Your task to perform on an android device: toggle data saver in the chrome app Image 0: 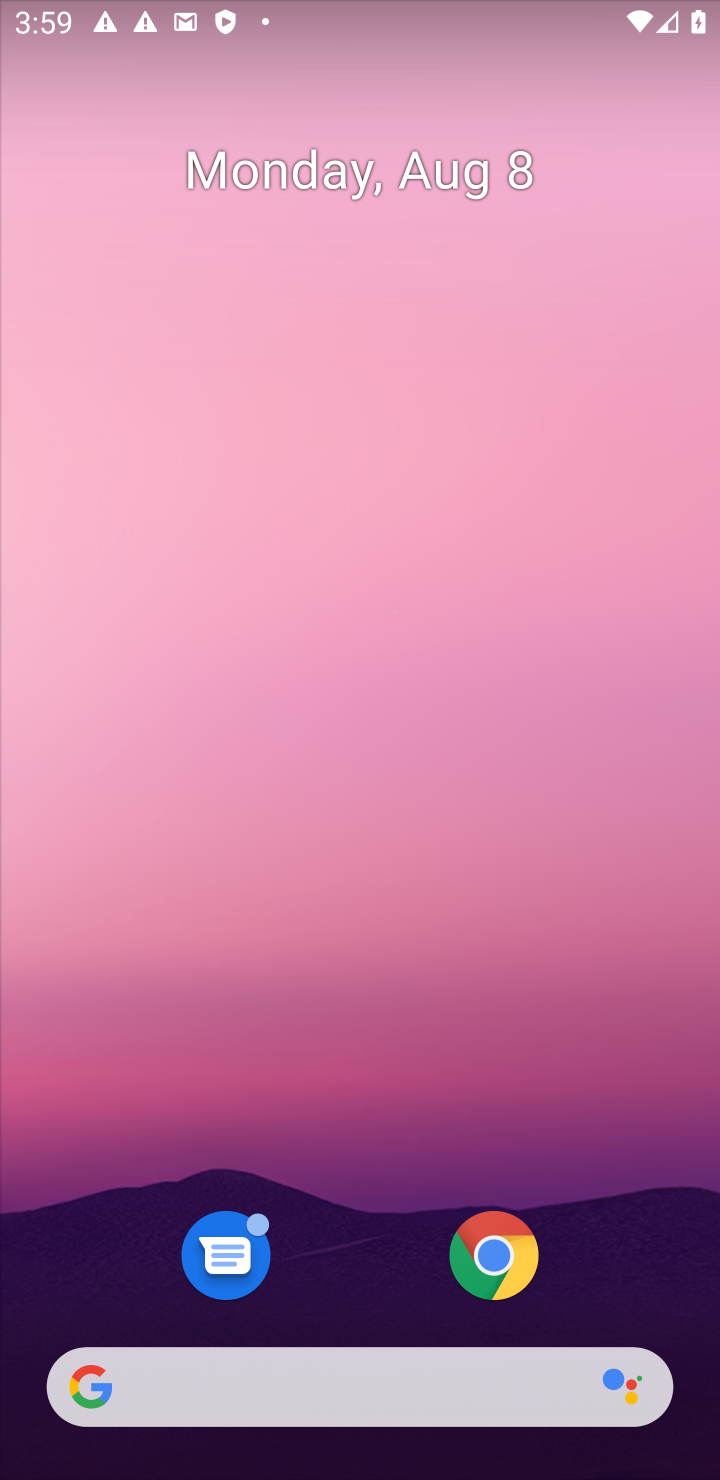
Step 0: click (499, 1256)
Your task to perform on an android device: toggle data saver in the chrome app Image 1: 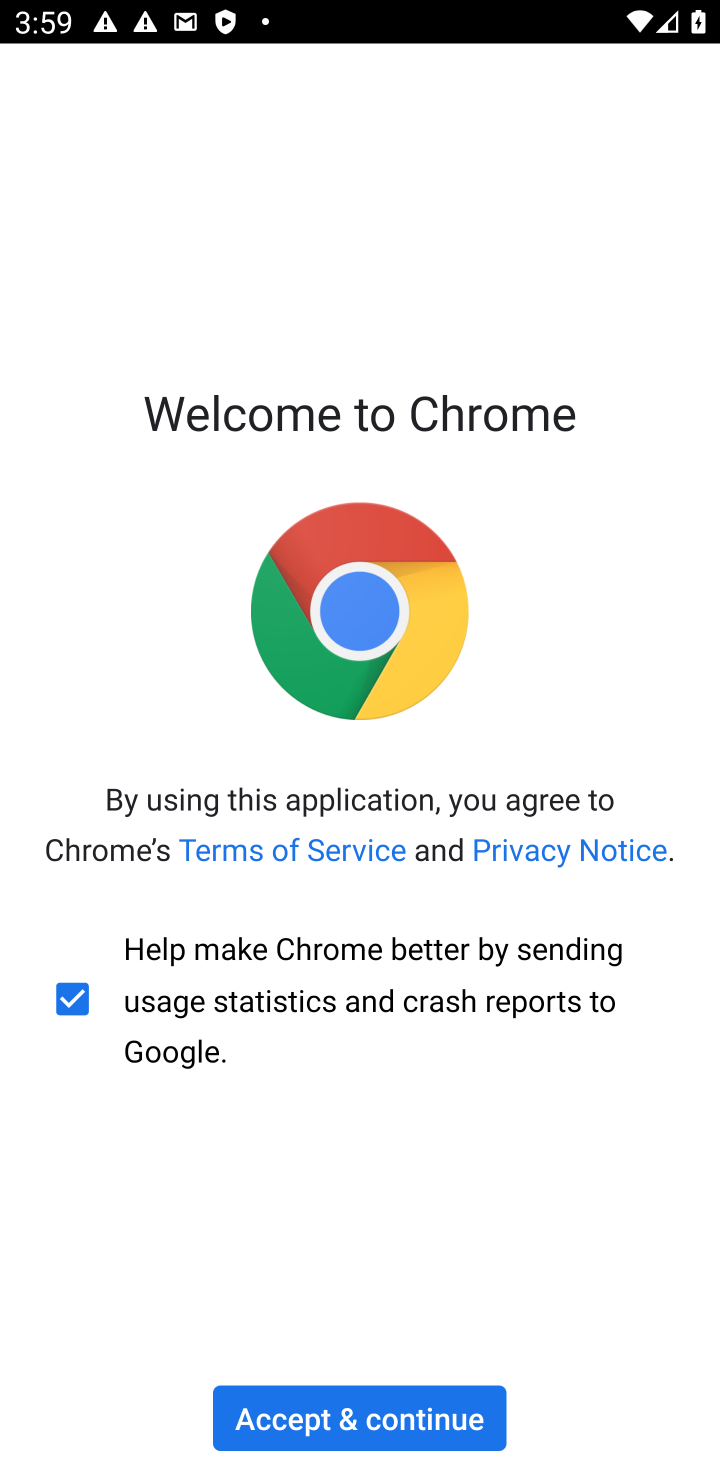
Step 1: click (364, 1415)
Your task to perform on an android device: toggle data saver in the chrome app Image 2: 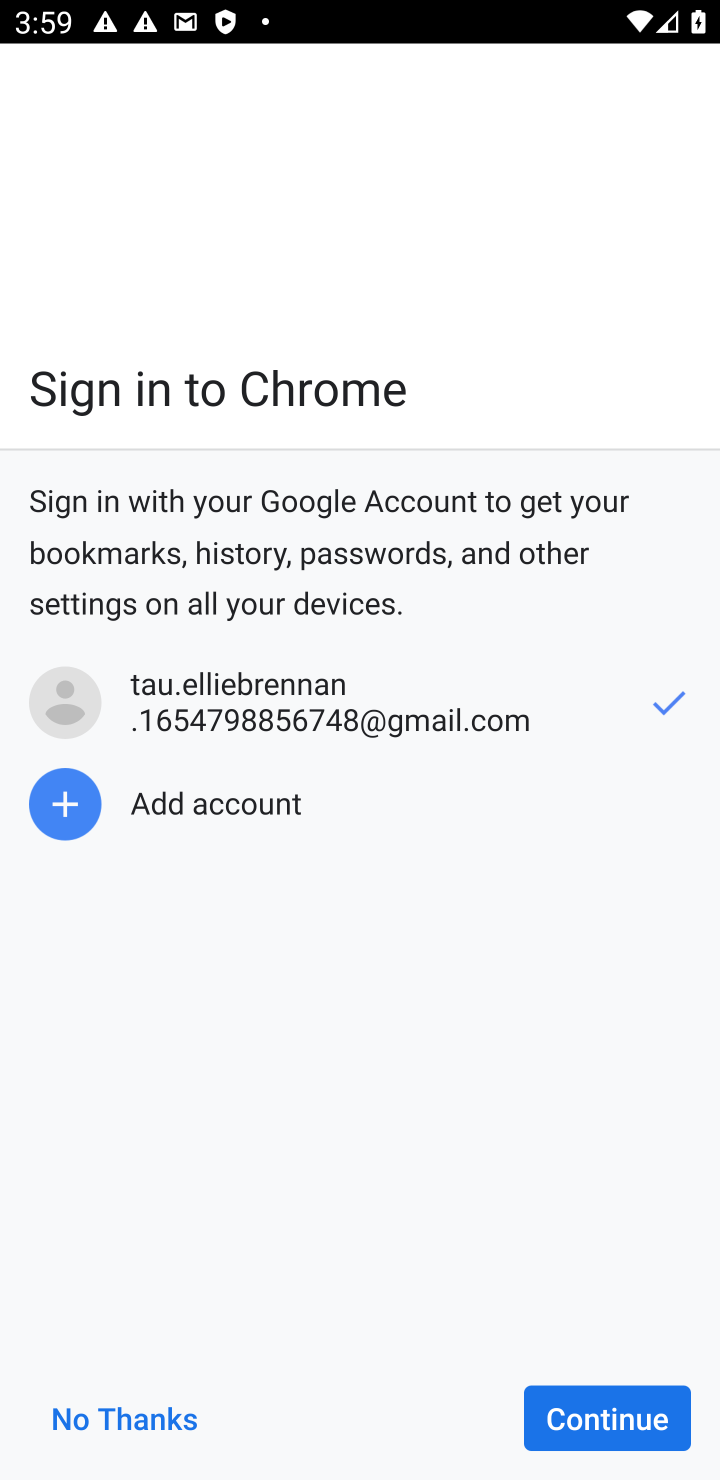
Step 2: click (590, 1407)
Your task to perform on an android device: toggle data saver in the chrome app Image 3: 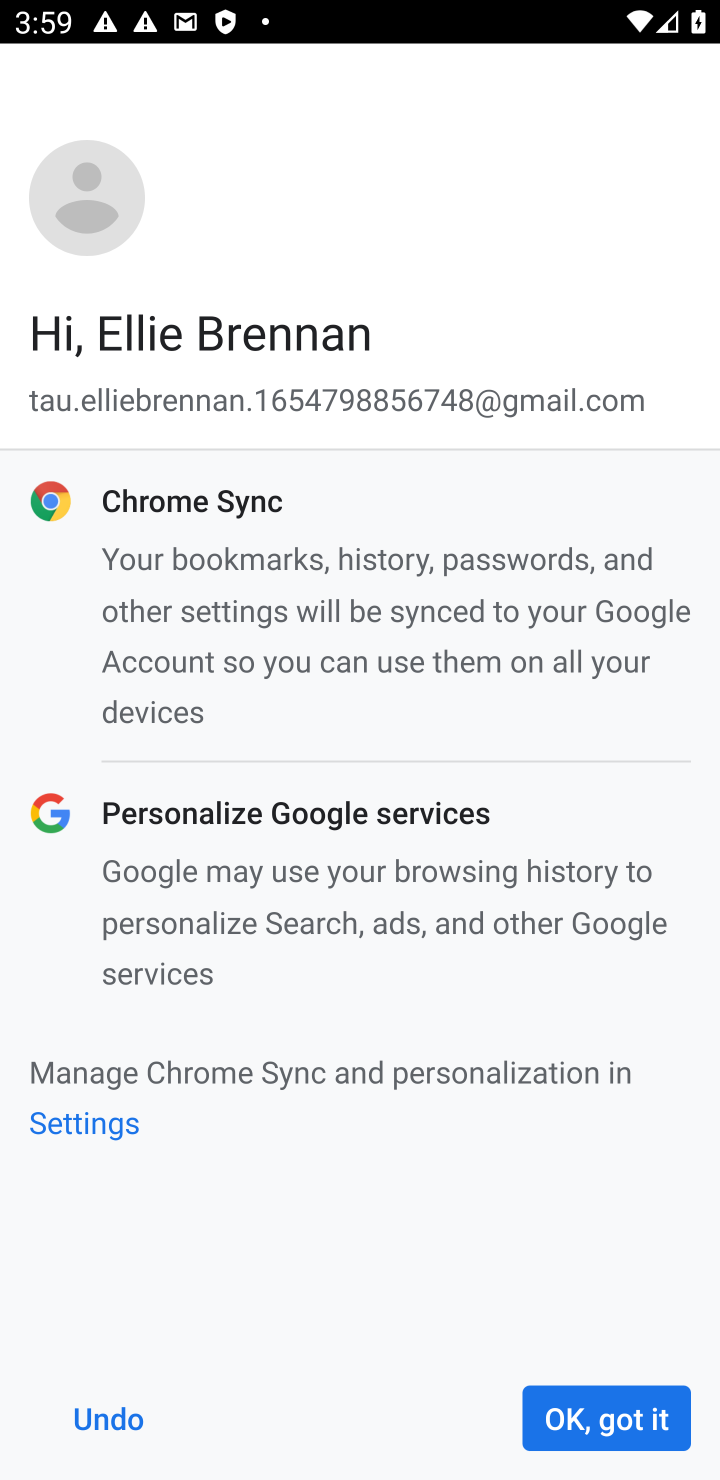
Step 3: click (590, 1407)
Your task to perform on an android device: toggle data saver in the chrome app Image 4: 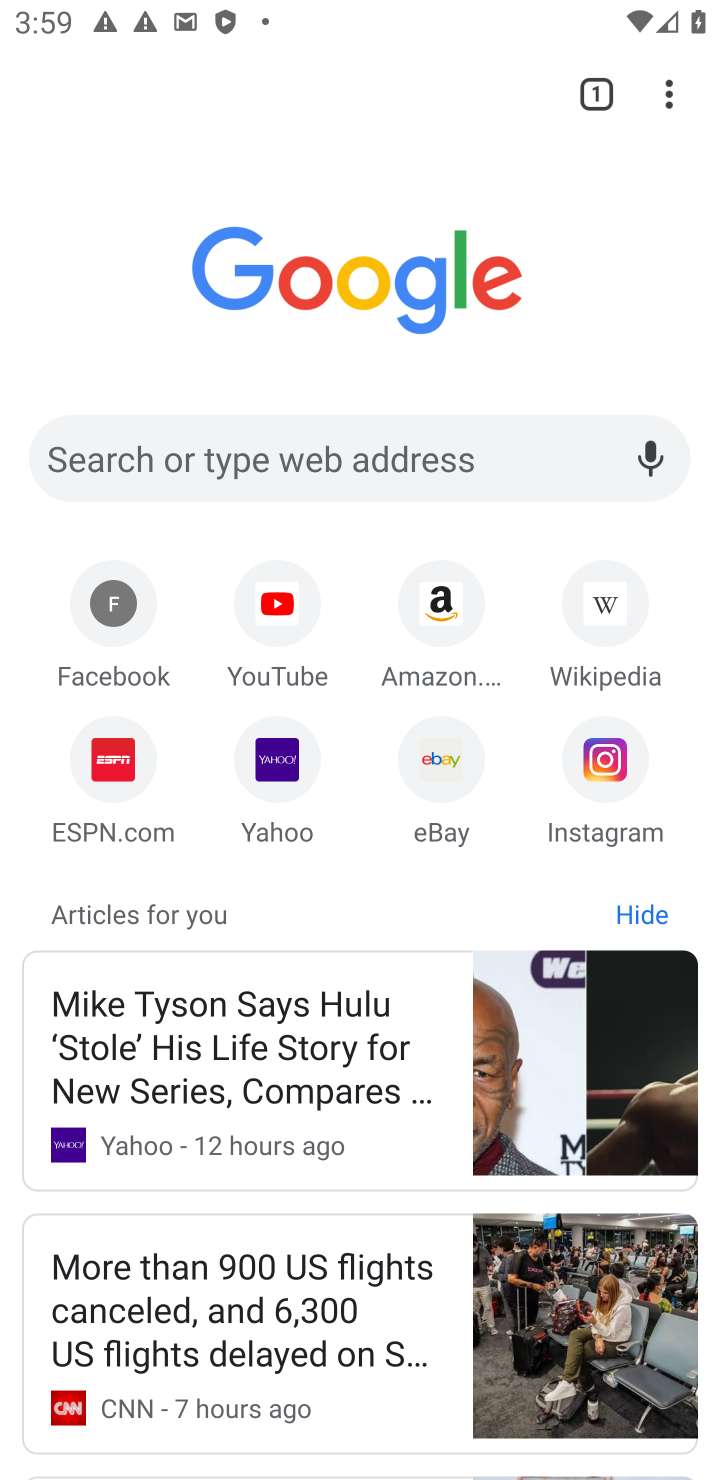
Step 4: click (668, 90)
Your task to perform on an android device: toggle data saver in the chrome app Image 5: 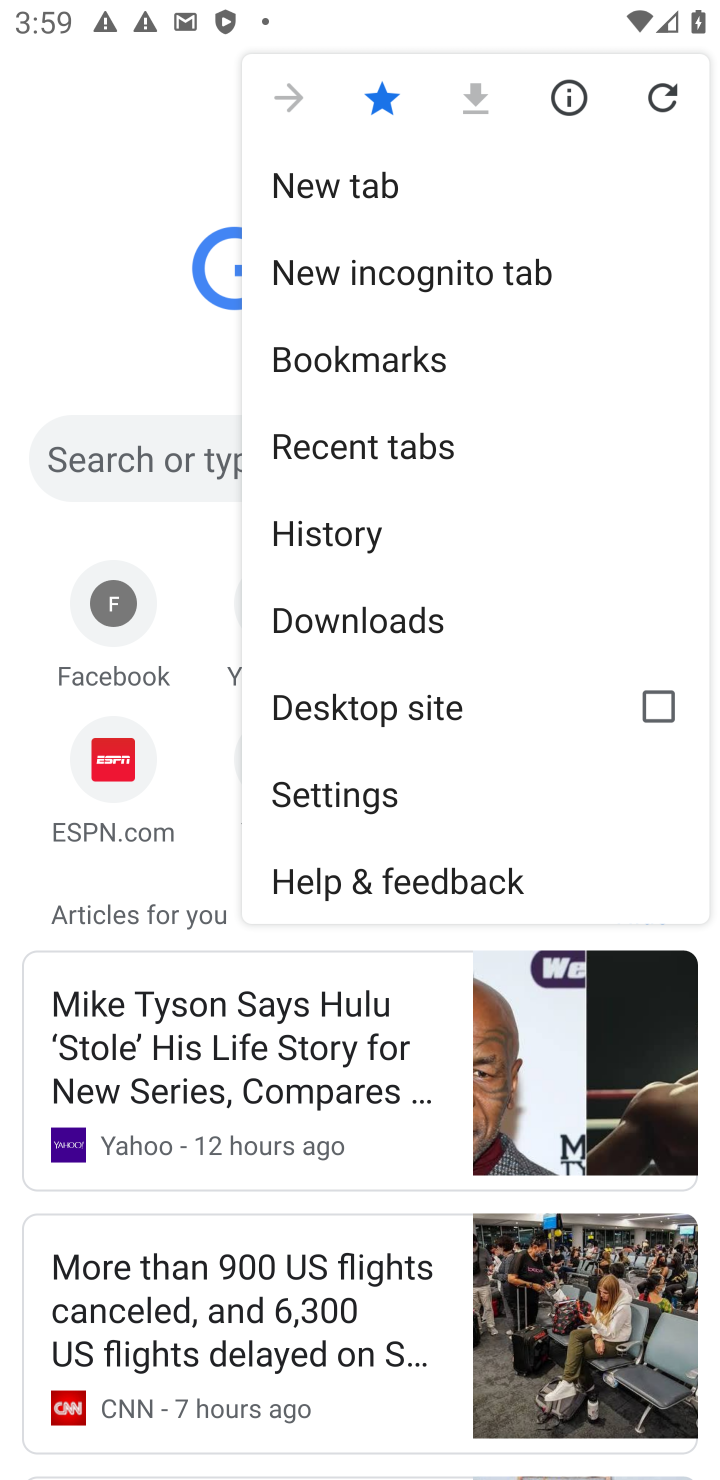
Step 5: click (339, 796)
Your task to perform on an android device: toggle data saver in the chrome app Image 6: 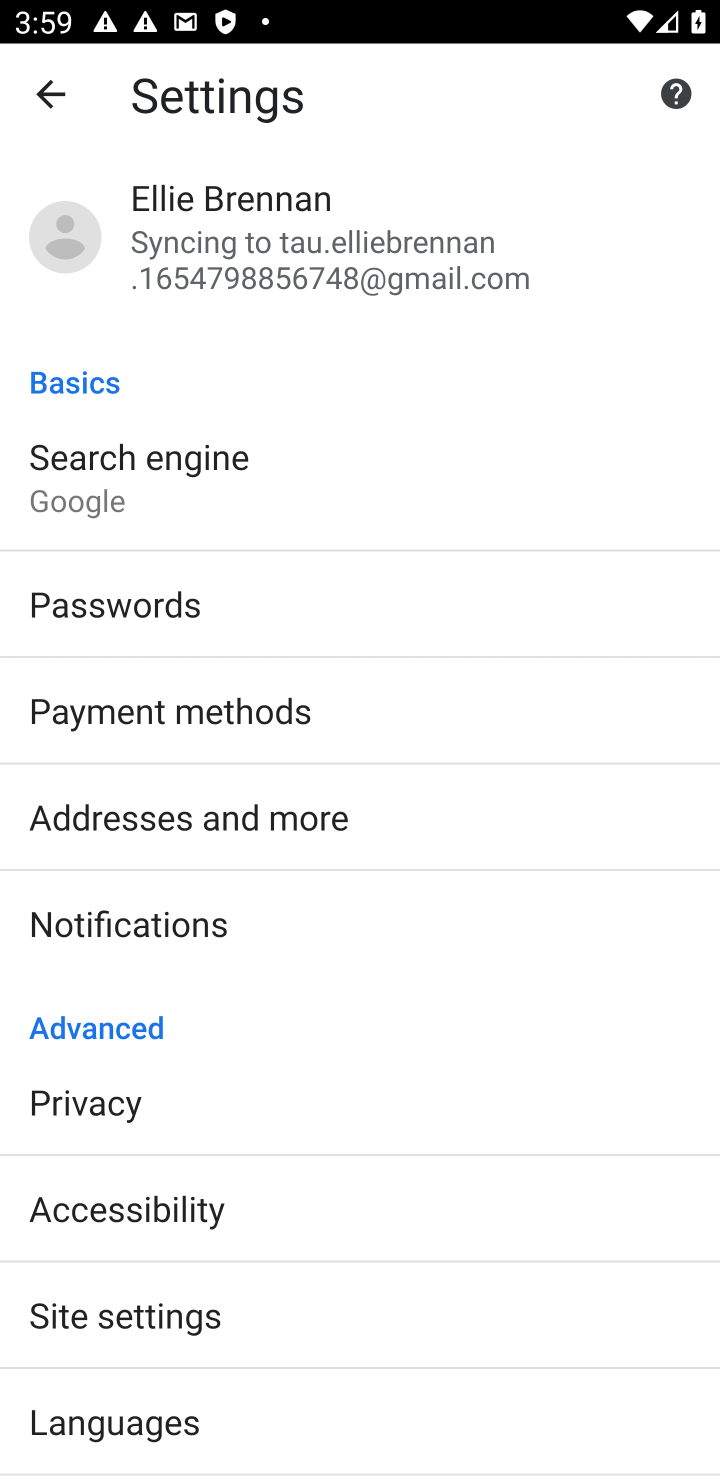
Step 6: drag from (238, 1051) to (322, 876)
Your task to perform on an android device: toggle data saver in the chrome app Image 7: 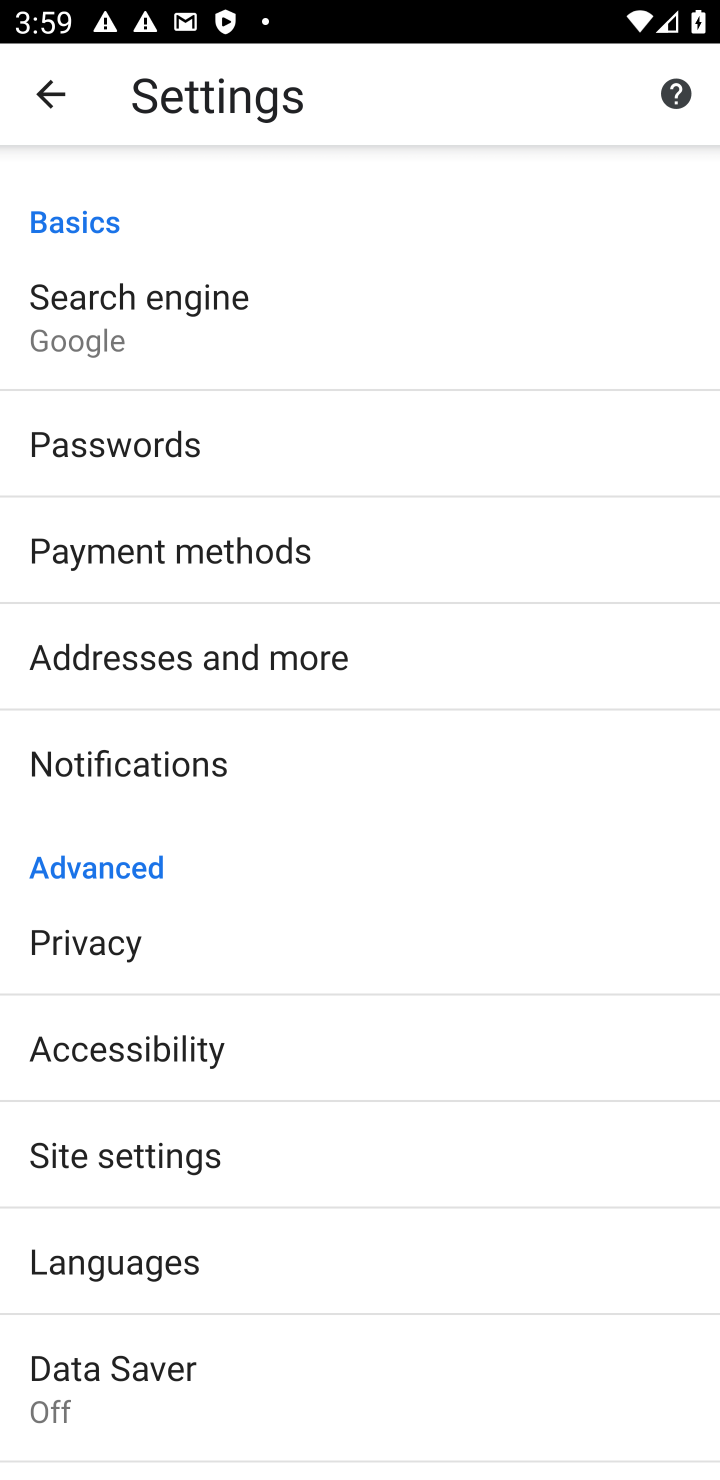
Step 7: click (147, 1369)
Your task to perform on an android device: toggle data saver in the chrome app Image 8: 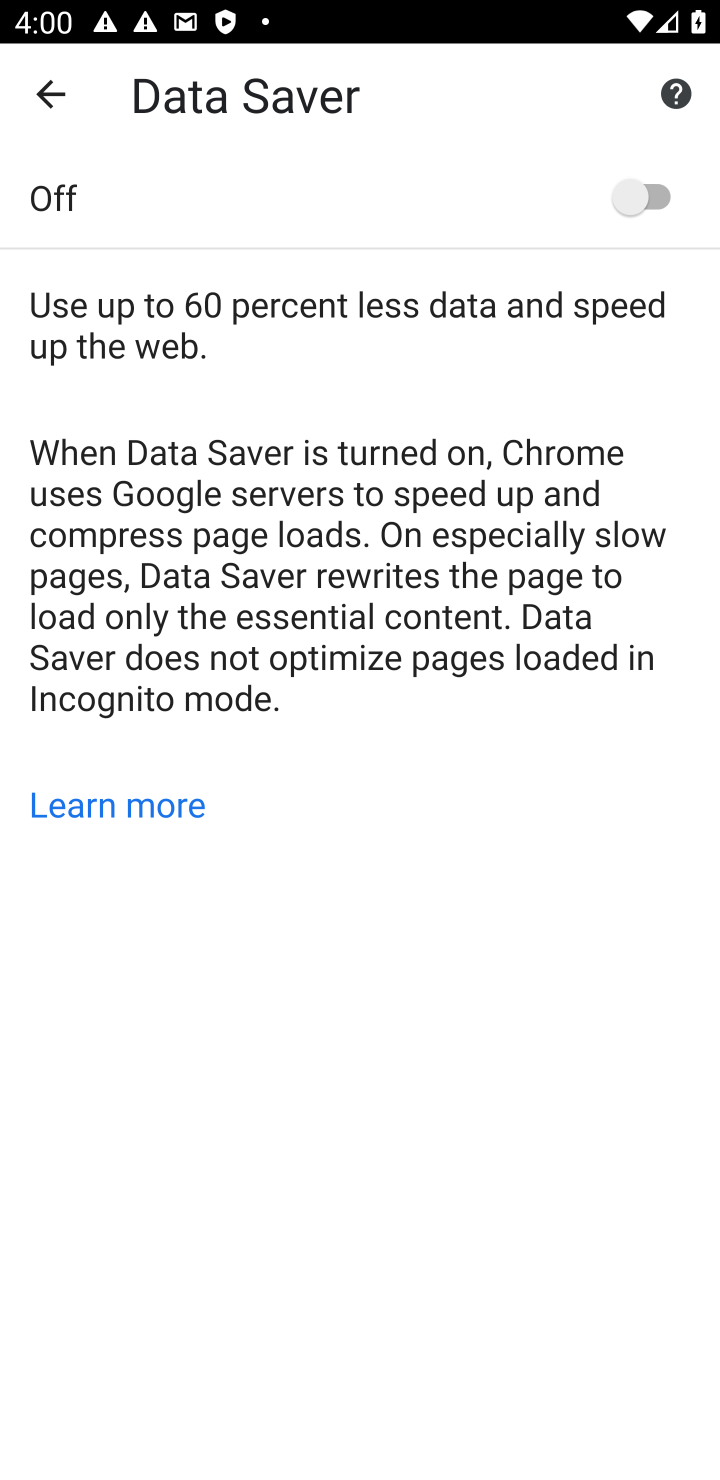
Step 8: click (629, 203)
Your task to perform on an android device: toggle data saver in the chrome app Image 9: 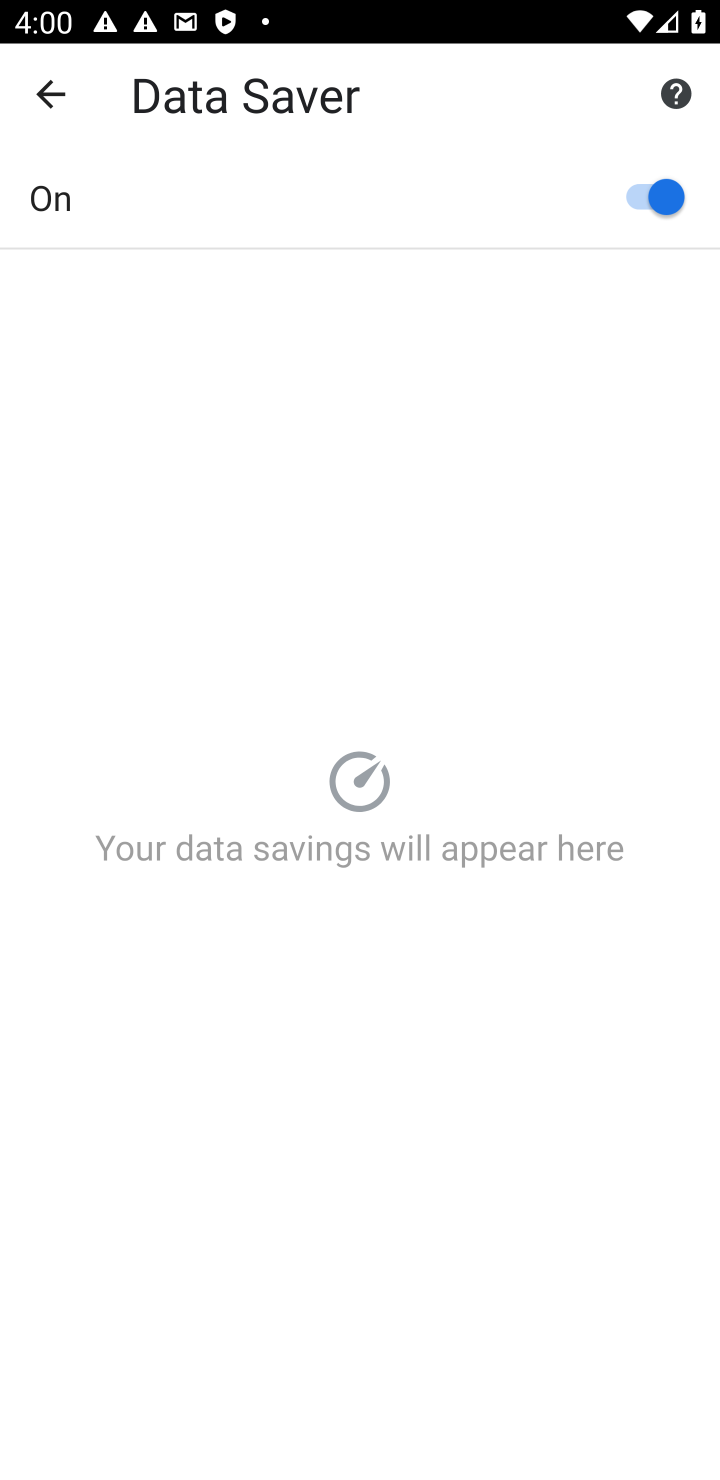
Step 9: task complete